Your task to perform on an android device: Open Google Image 0: 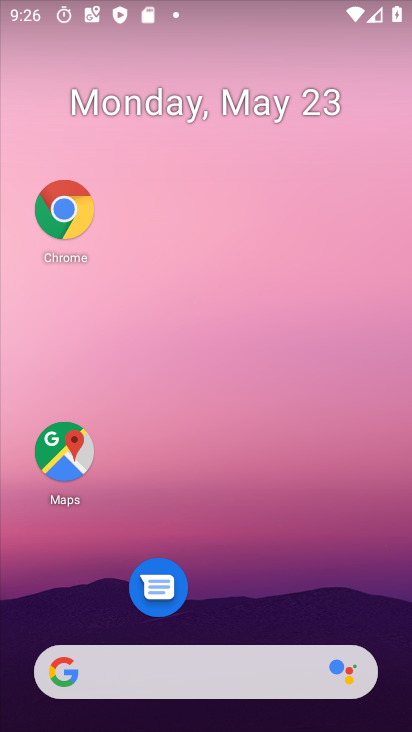
Step 0: click (298, 636)
Your task to perform on an android device: Open Google Image 1: 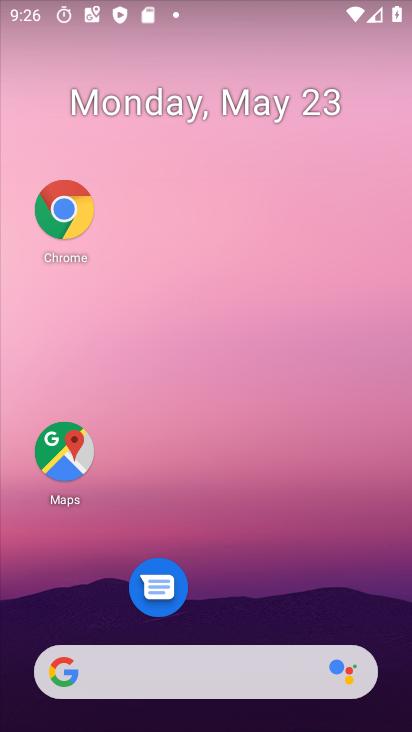
Step 1: click (242, 679)
Your task to perform on an android device: Open Google Image 2: 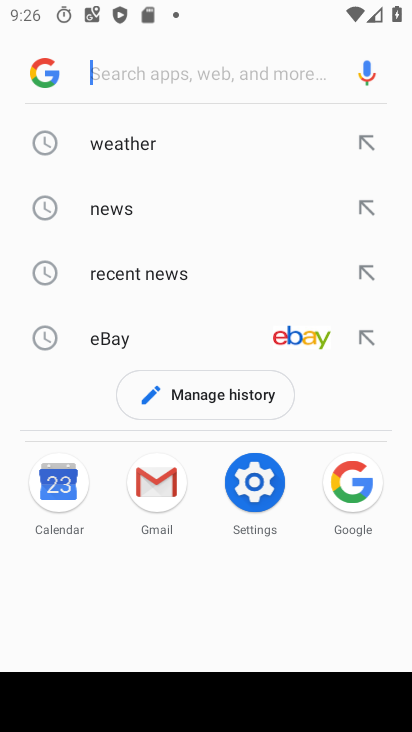
Step 2: task complete